Your task to perform on an android device: turn off translation in the chrome app Image 0: 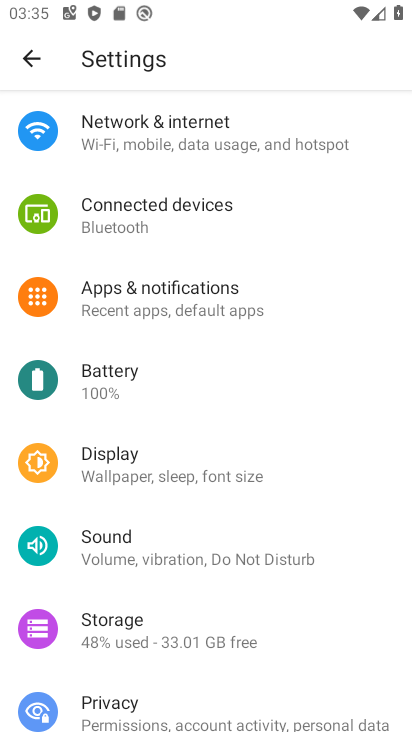
Step 0: press home button
Your task to perform on an android device: turn off translation in the chrome app Image 1: 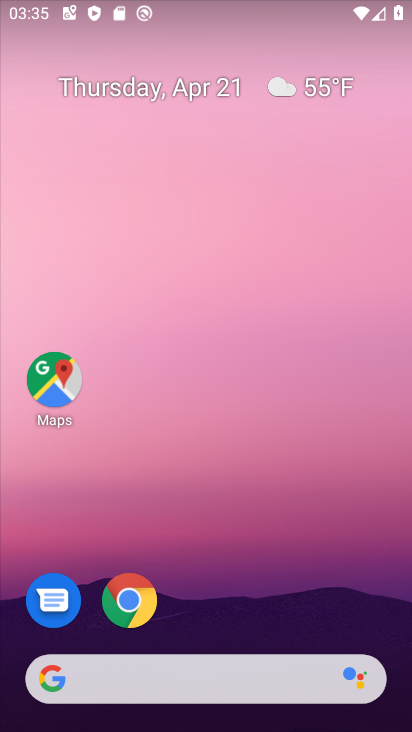
Step 1: click (106, 593)
Your task to perform on an android device: turn off translation in the chrome app Image 2: 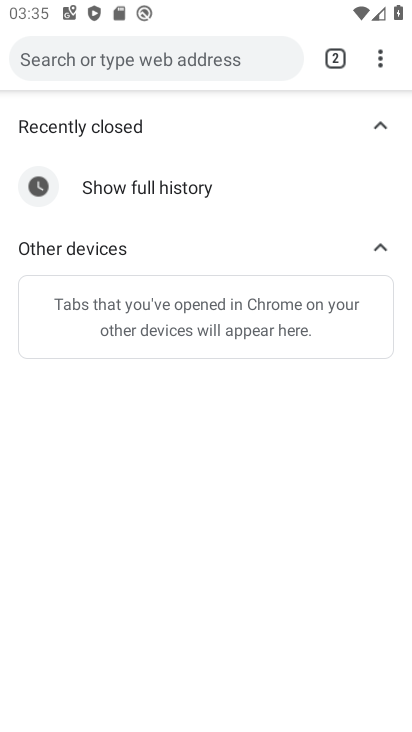
Step 2: click (370, 59)
Your task to perform on an android device: turn off translation in the chrome app Image 3: 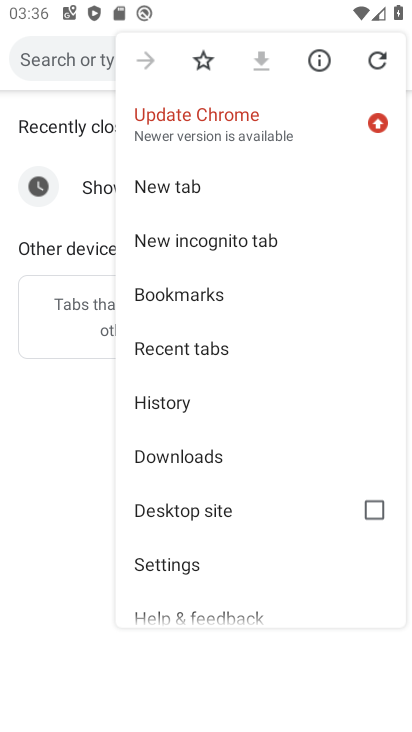
Step 3: click (205, 566)
Your task to perform on an android device: turn off translation in the chrome app Image 4: 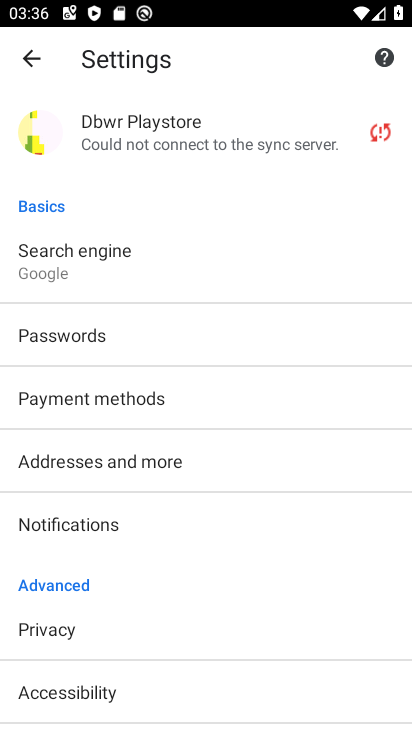
Step 4: drag from (94, 678) to (162, 443)
Your task to perform on an android device: turn off translation in the chrome app Image 5: 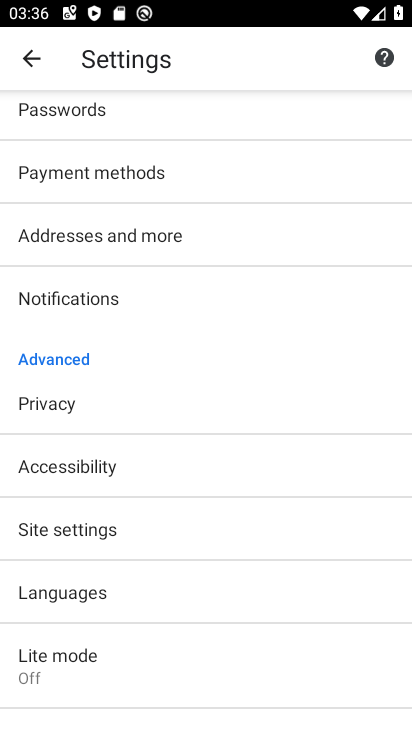
Step 5: click (85, 597)
Your task to perform on an android device: turn off translation in the chrome app Image 6: 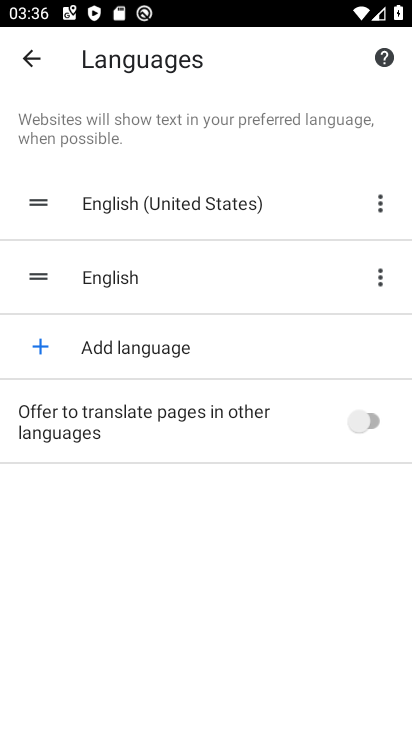
Step 6: task complete